Your task to perform on an android device: Go to settings Image 0: 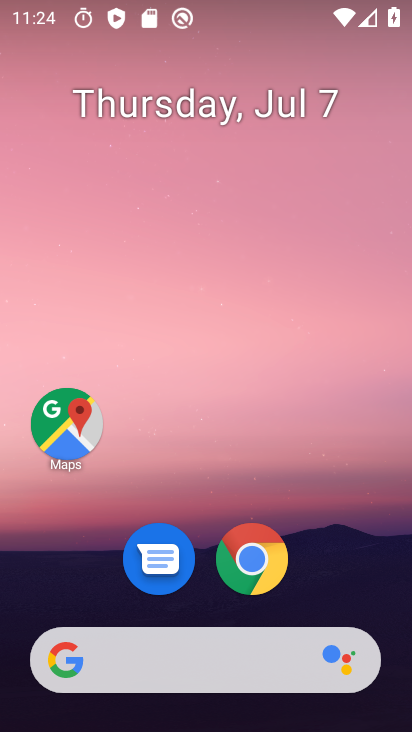
Step 0: drag from (368, 552) to (357, 97)
Your task to perform on an android device: Go to settings Image 1: 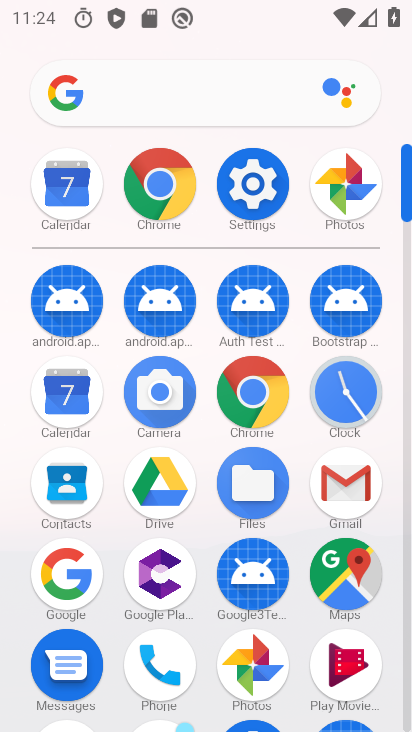
Step 1: click (266, 199)
Your task to perform on an android device: Go to settings Image 2: 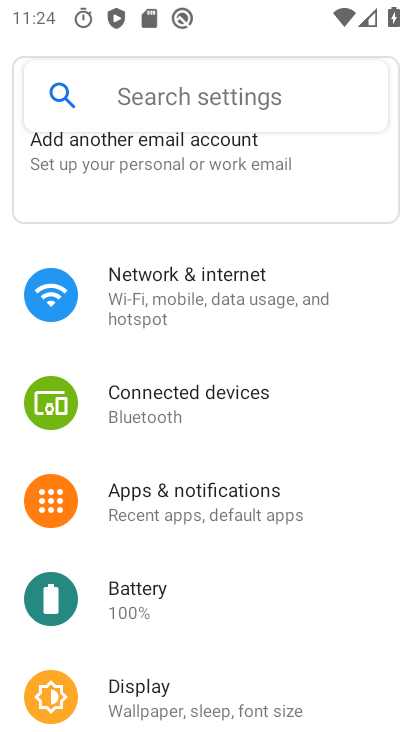
Step 2: task complete